Your task to perform on an android device: Show me the alarms in the clock app Image 0: 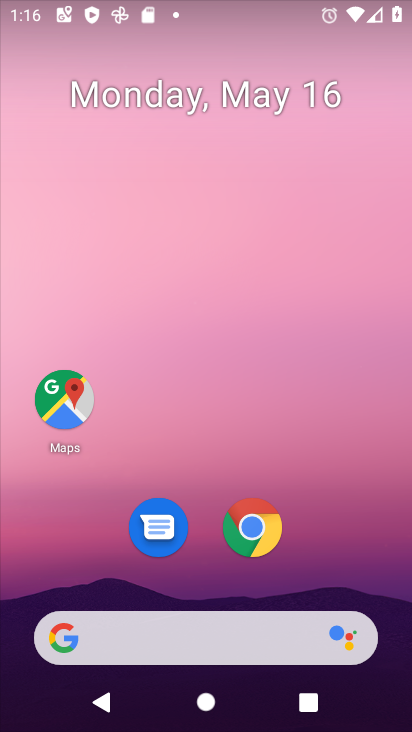
Step 0: drag from (380, 544) to (348, 104)
Your task to perform on an android device: Show me the alarms in the clock app Image 1: 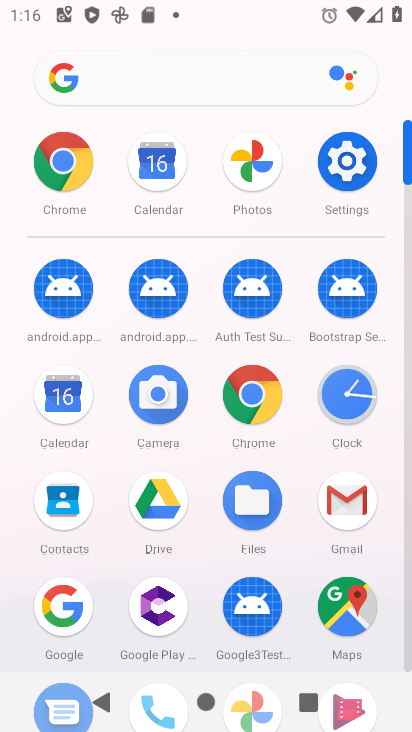
Step 1: click (368, 403)
Your task to perform on an android device: Show me the alarms in the clock app Image 2: 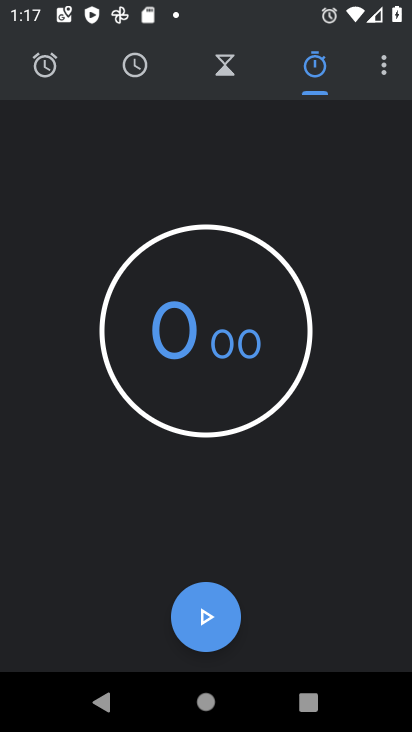
Step 2: click (24, 48)
Your task to perform on an android device: Show me the alarms in the clock app Image 3: 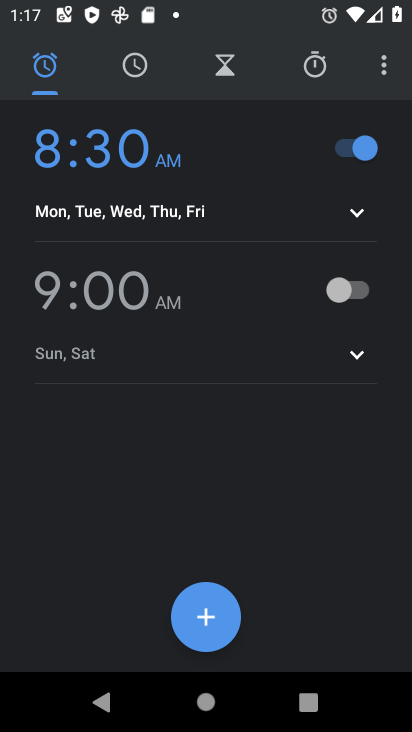
Step 3: task complete